Your task to perform on an android device: Go to sound settings Image 0: 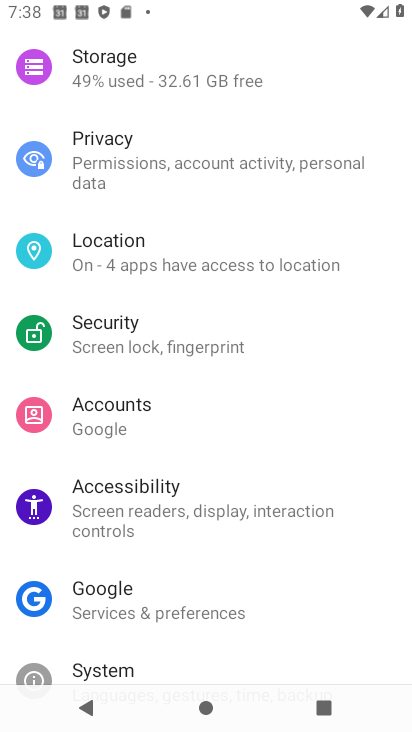
Step 0: press home button
Your task to perform on an android device: Go to sound settings Image 1: 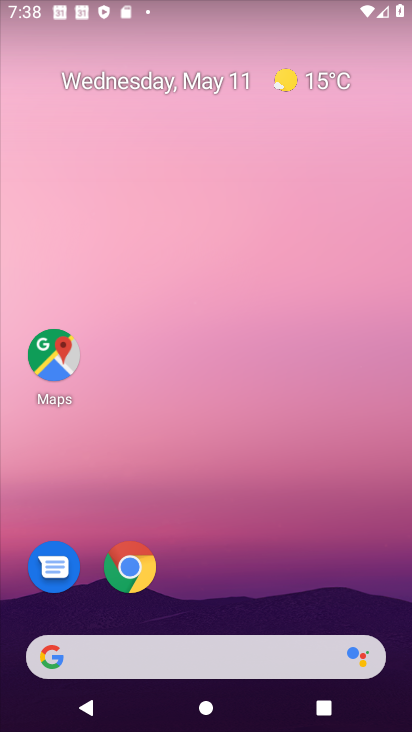
Step 1: drag from (154, 649) to (299, 100)
Your task to perform on an android device: Go to sound settings Image 2: 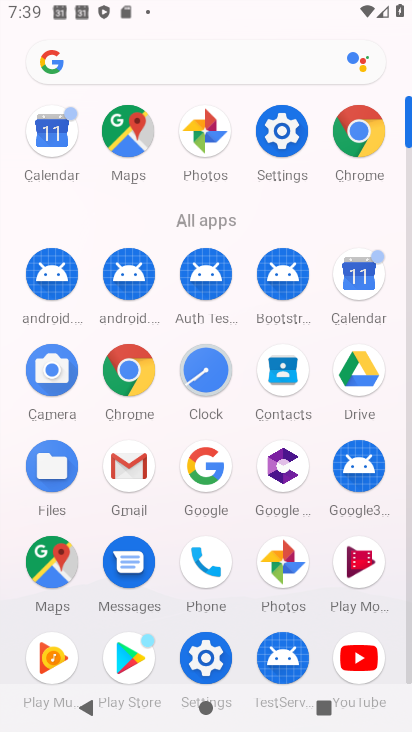
Step 2: click (282, 135)
Your task to perform on an android device: Go to sound settings Image 3: 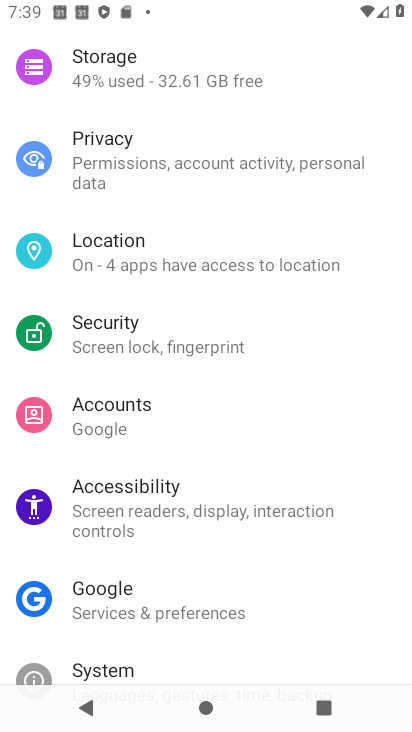
Step 3: drag from (338, 124) to (333, 480)
Your task to perform on an android device: Go to sound settings Image 4: 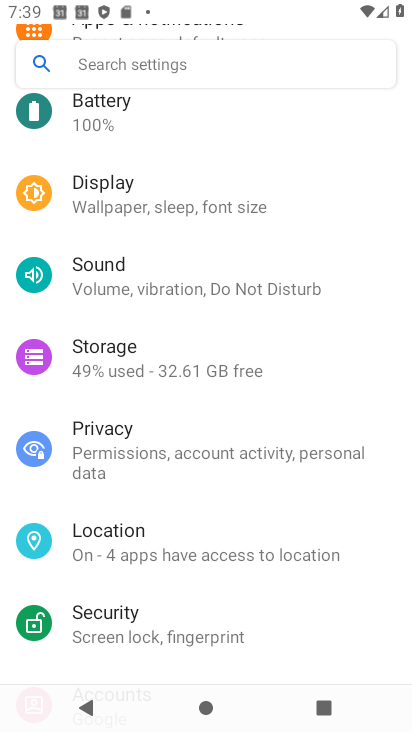
Step 4: click (135, 292)
Your task to perform on an android device: Go to sound settings Image 5: 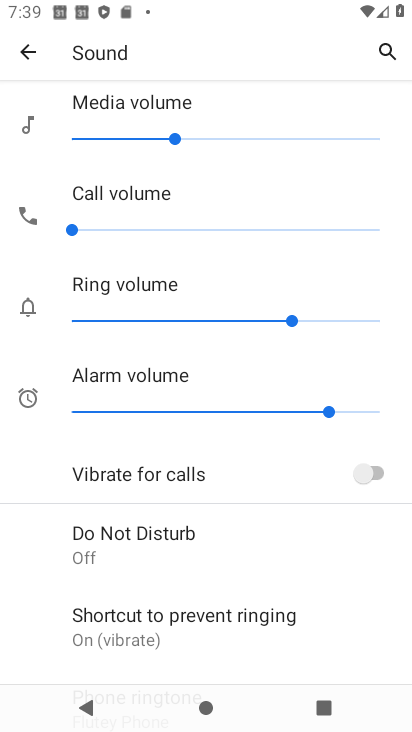
Step 5: task complete